Your task to perform on an android device: turn off notifications settings in the gmail app Image 0: 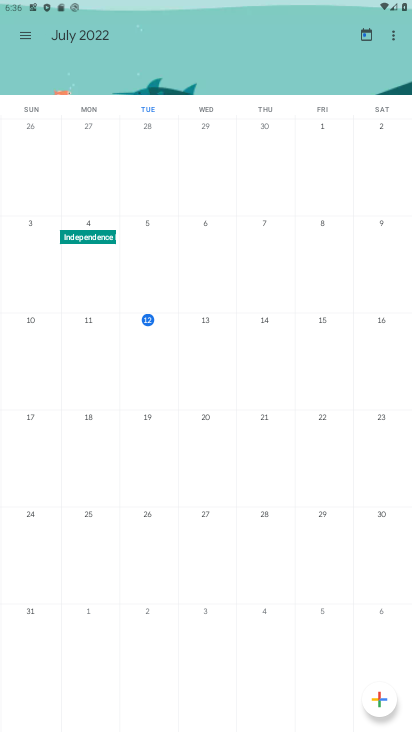
Step 0: press home button
Your task to perform on an android device: turn off notifications settings in the gmail app Image 1: 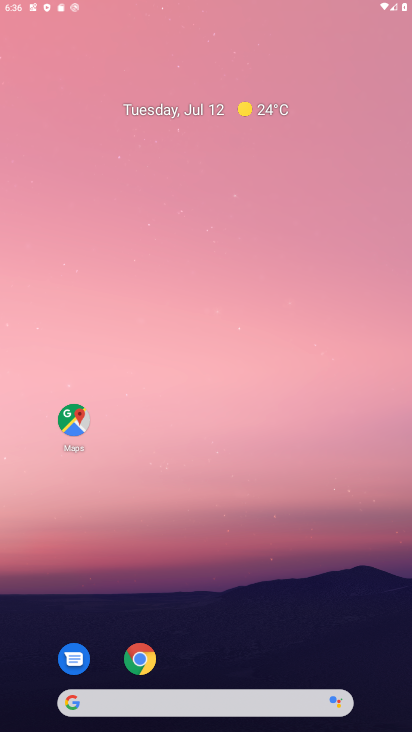
Step 1: drag from (326, 654) to (360, 33)
Your task to perform on an android device: turn off notifications settings in the gmail app Image 2: 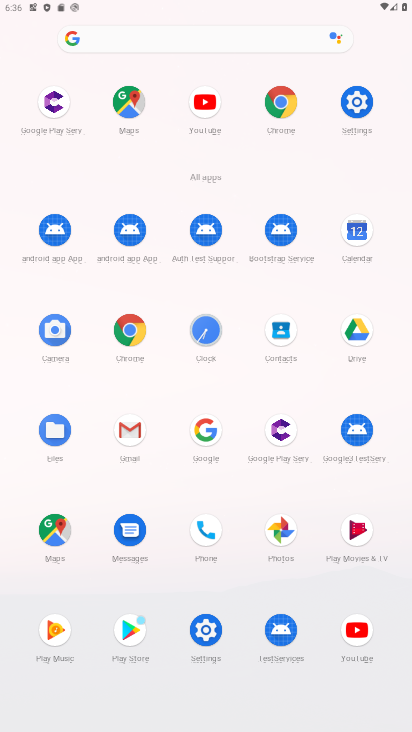
Step 2: click (144, 422)
Your task to perform on an android device: turn off notifications settings in the gmail app Image 3: 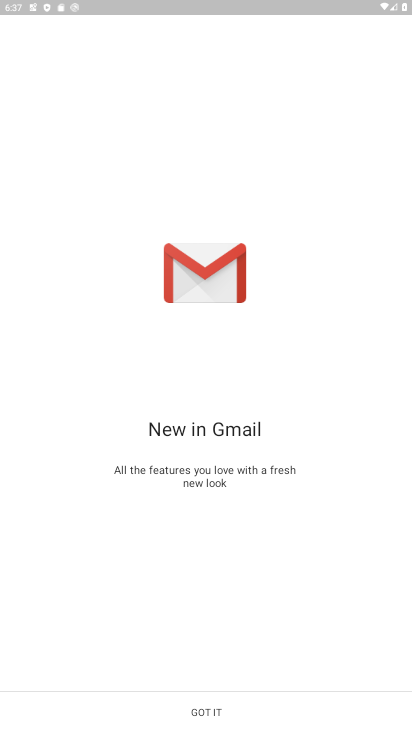
Step 3: click (177, 705)
Your task to perform on an android device: turn off notifications settings in the gmail app Image 4: 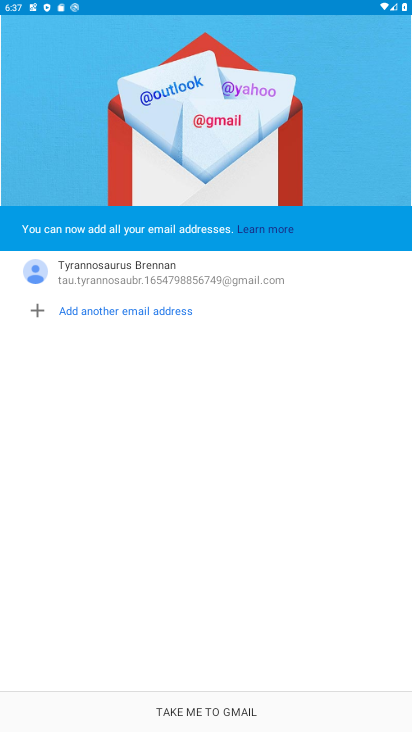
Step 4: click (177, 705)
Your task to perform on an android device: turn off notifications settings in the gmail app Image 5: 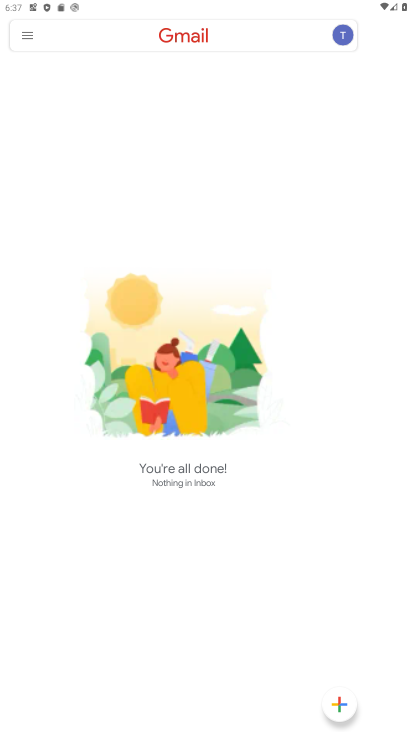
Step 5: click (27, 35)
Your task to perform on an android device: turn off notifications settings in the gmail app Image 6: 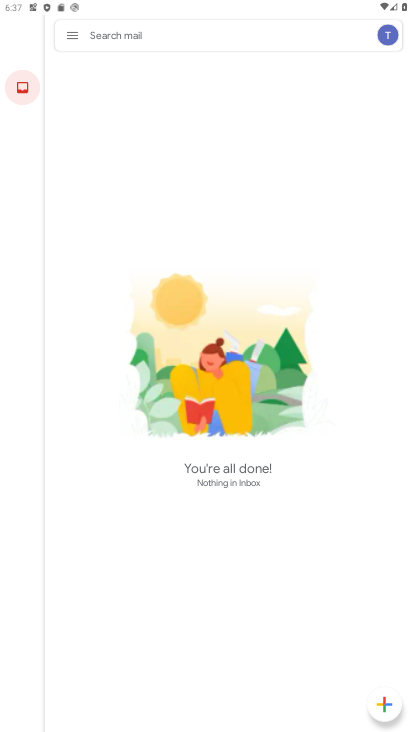
Step 6: click (66, 31)
Your task to perform on an android device: turn off notifications settings in the gmail app Image 7: 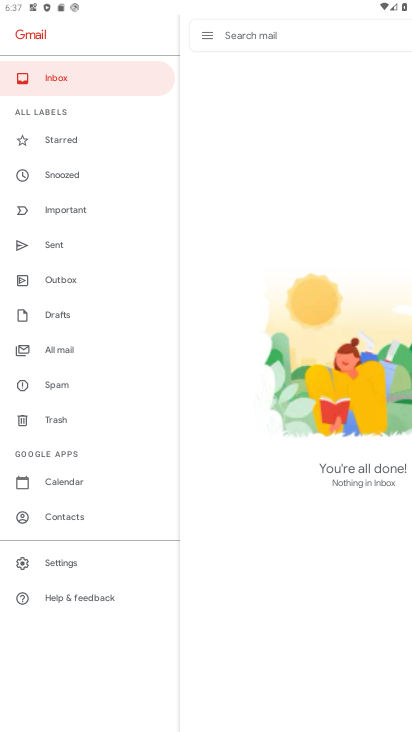
Step 7: click (68, 567)
Your task to perform on an android device: turn off notifications settings in the gmail app Image 8: 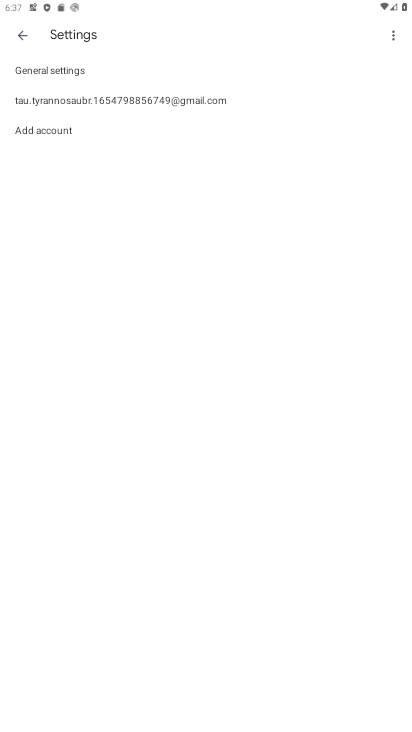
Step 8: click (121, 99)
Your task to perform on an android device: turn off notifications settings in the gmail app Image 9: 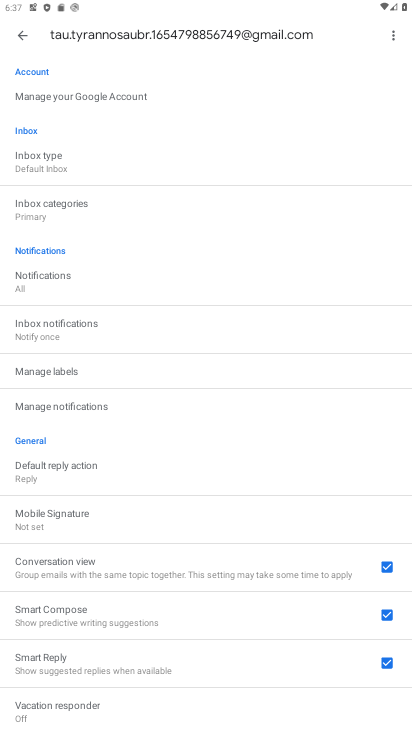
Step 9: click (27, 283)
Your task to perform on an android device: turn off notifications settings in the gmail app Image 10: 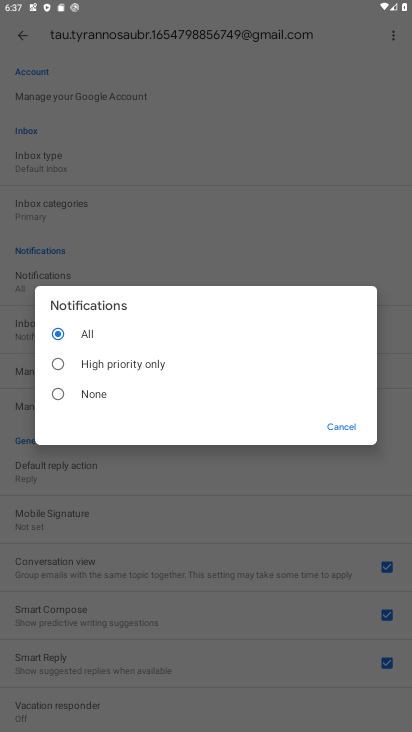
Step 10: click (71, 392)
Your task to perform on an android device: turn off notifications settings in the gmail app Image 11: 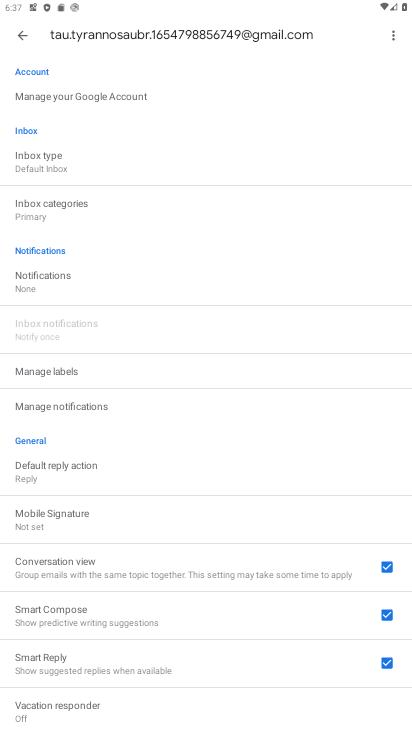
Step 11: task complete